Your task to perform on an android device: Search for pizza restaurants on Maps Image 0: 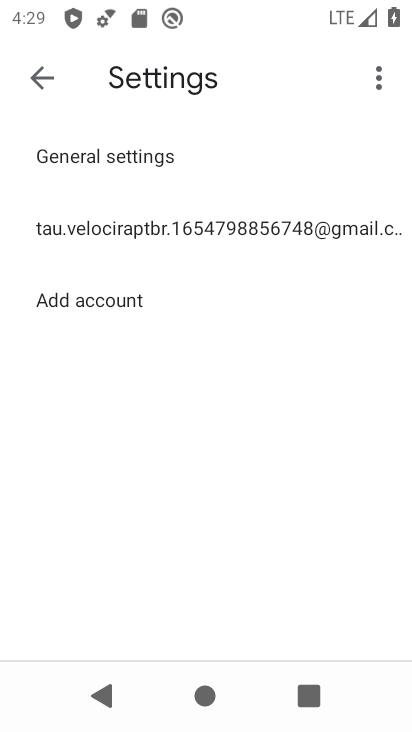
Step 0: press home button
Your task to perform on an android device: Search for pizza restaurants on Maps Image 1: 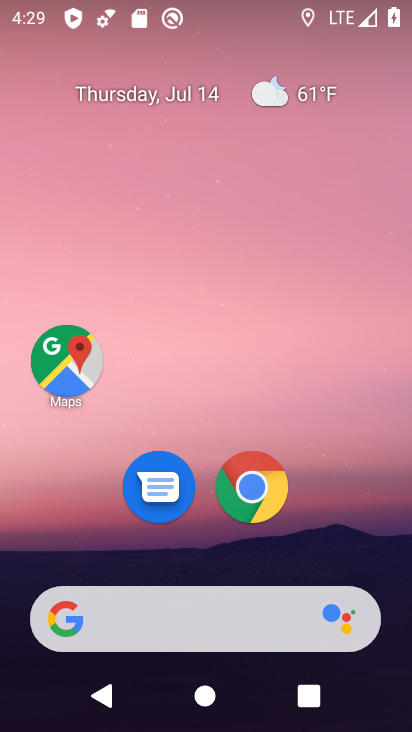
Step 1: click (76, 382)
Your task to perform on an android device: Search for pizza restaurants on Maps Image 2: 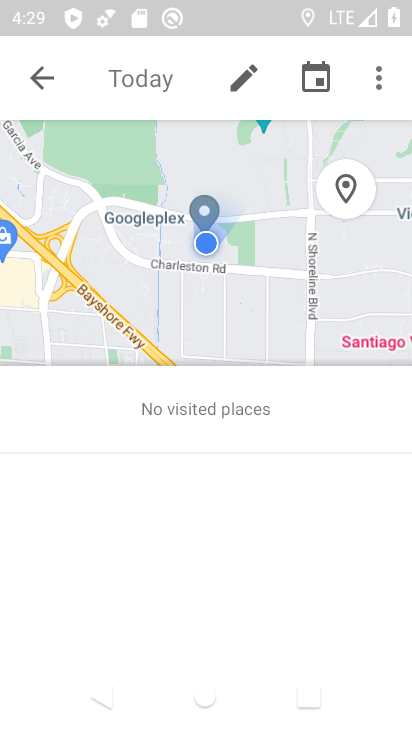
Step 2: click (37, 86)
Your task to perform on an android device: Search for pizza restaurants on Maps Image 3: 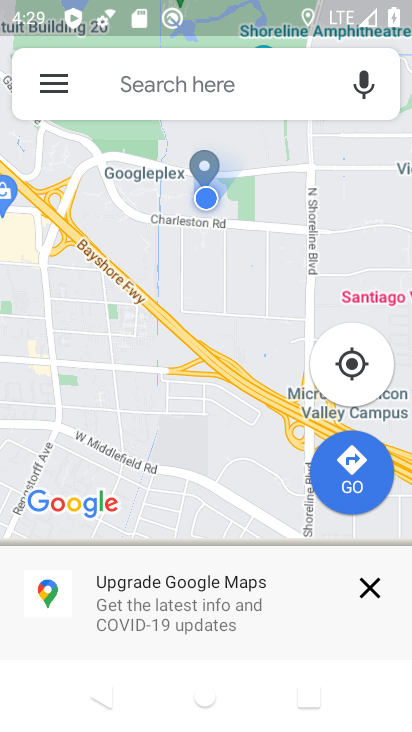
Step 3: click (136, 82)
Your task to perform on an android device: Search for pizza restaurants on Maps Image 4: 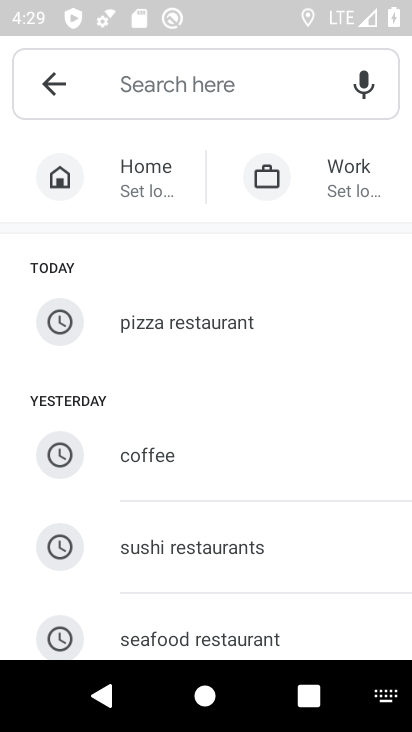
Step 4: click (247, 323)
Your task to perform on an android device: Search for pizza restaurants on Maps Image 5: 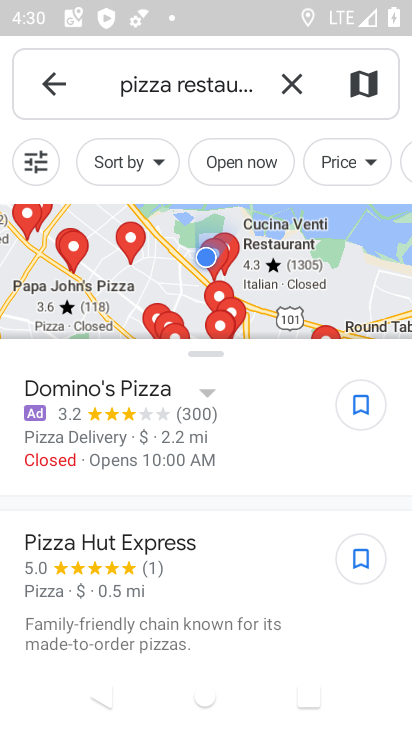
Step 5: task complete